Your task to perform on an android device: open device folders in google photos Image 0: 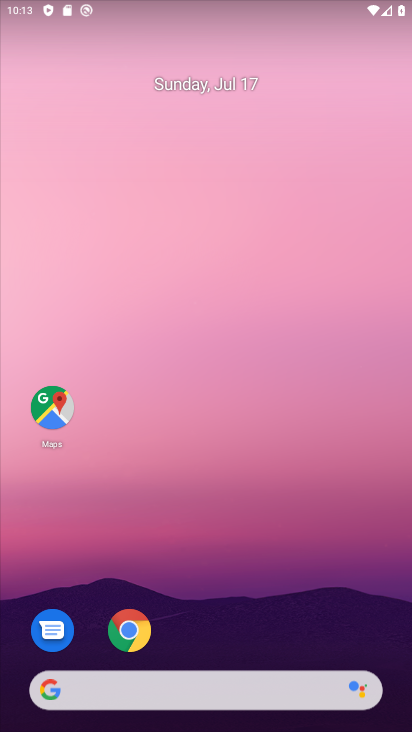
Step 0: drag from (388, 644) to (353, 59)
Your task to perform on an android device: open device folders in google photos Image 1: 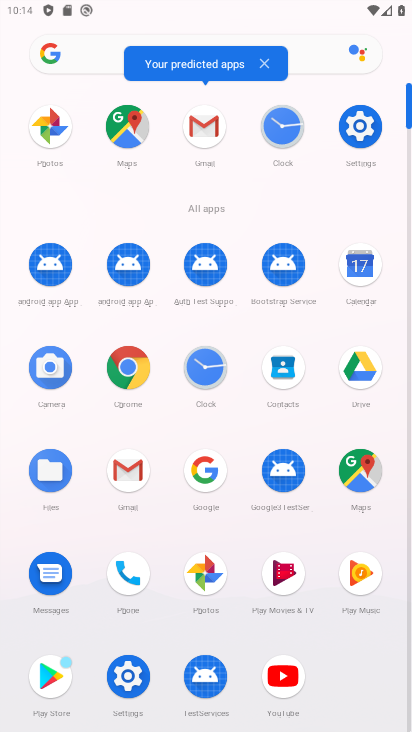
Step 1: click (206, 572)
Your task to perform on an android device: open device folders in google photos Image 2: 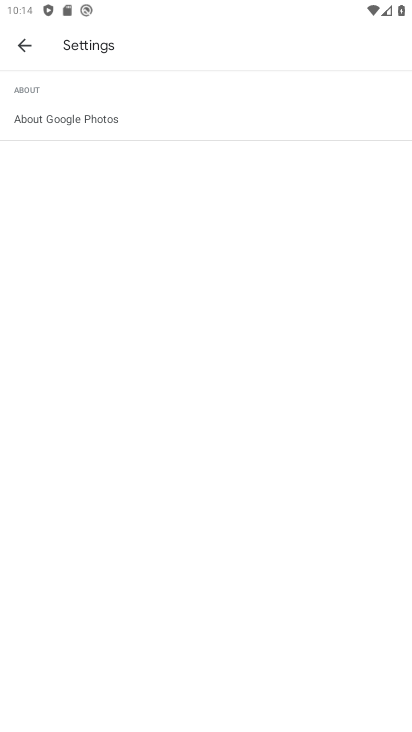
Step 2: press back button
Your task to perform on an android device: open device folders in google photos Image 3: 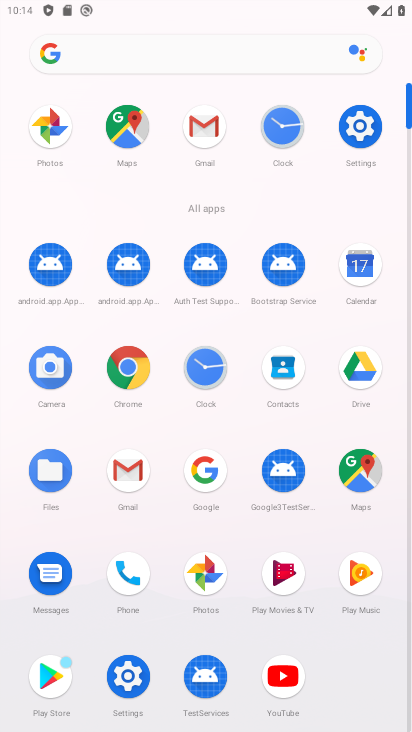
Step 3: click (206, 574)
Your task to perform on an android device: open device folders in google photos Image 4: 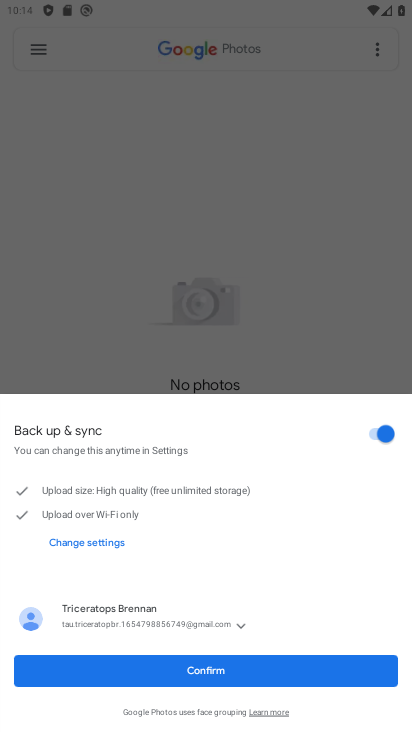
Step 4: click (204, 670)
Your task to perform on an android device: open device folders in google photos Image 5: 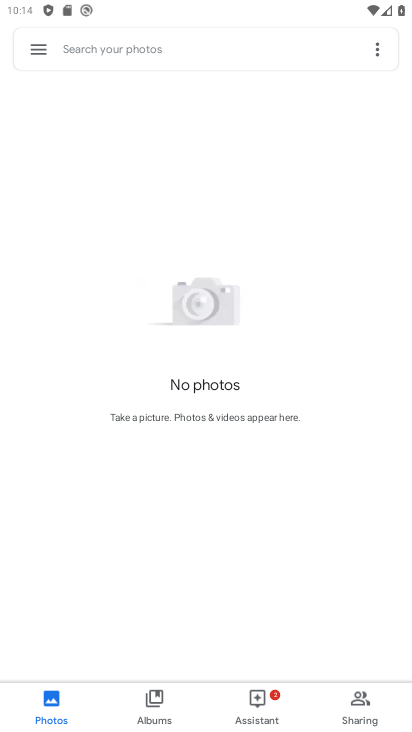
Step 5: click (38, 51)
Your task to perform on an android device: open device folders in google photos Image 6: 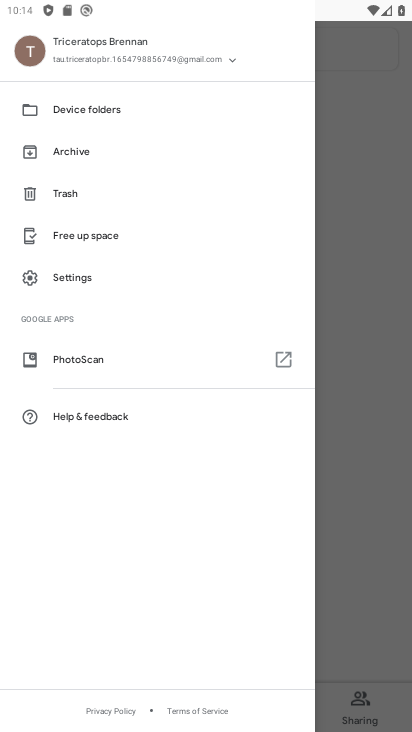
Step 6: click (69, 104)
Your task to perform on an android device: open device folders in google photos Image 7: 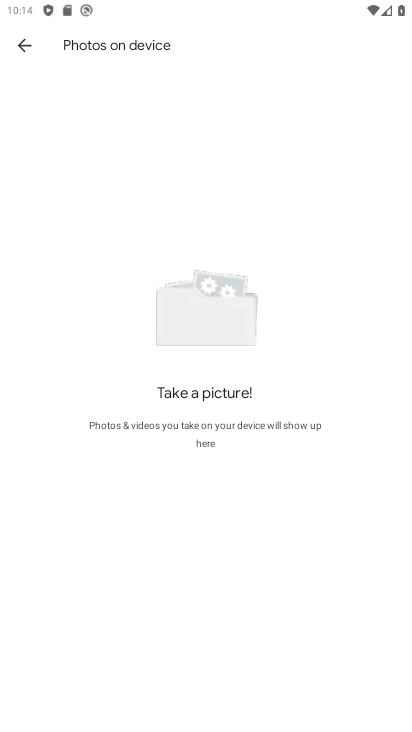
Step 7: task complete